Your task to perform on an android device: toggle improve location accuracy Image 0: 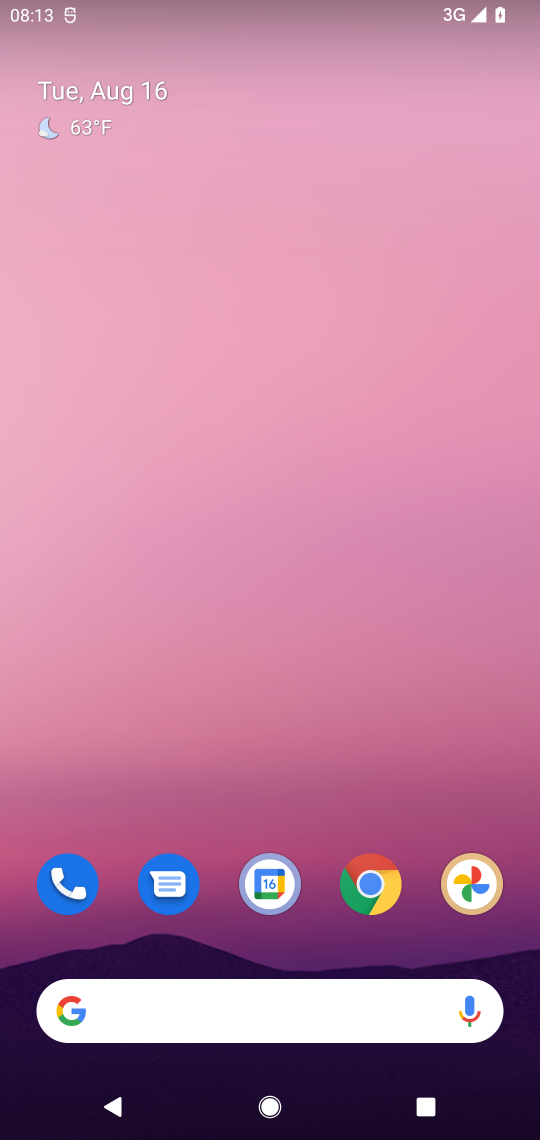
Step 0: press home button
Your task to perform on an android device: toggle improve location accuracy Image 1: 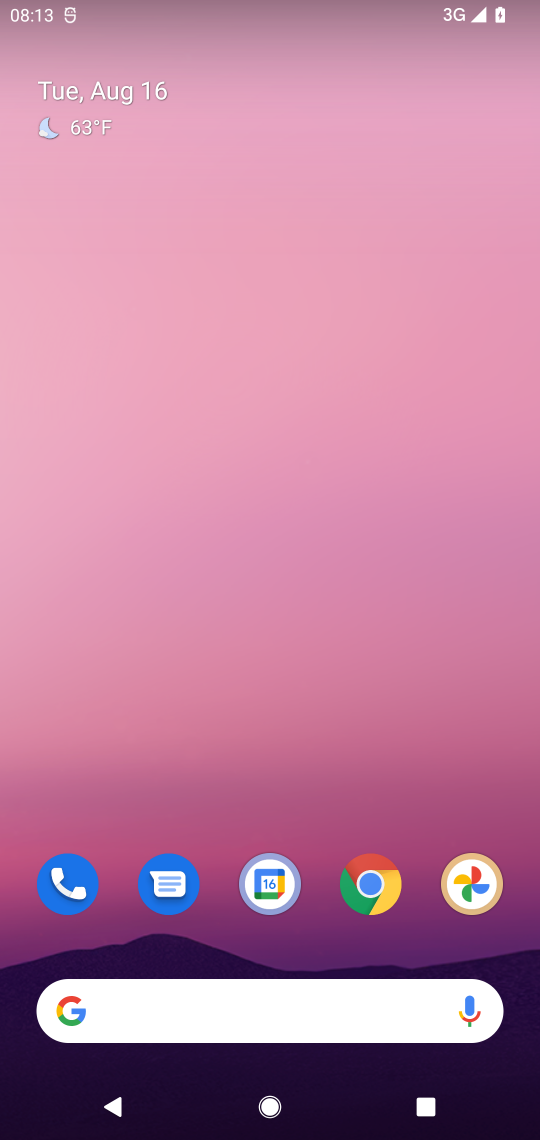
Step 1: drag from (308, 817) to (218, 129)
Your task to perform on an android device: toggle improve location accuracy Image 2: 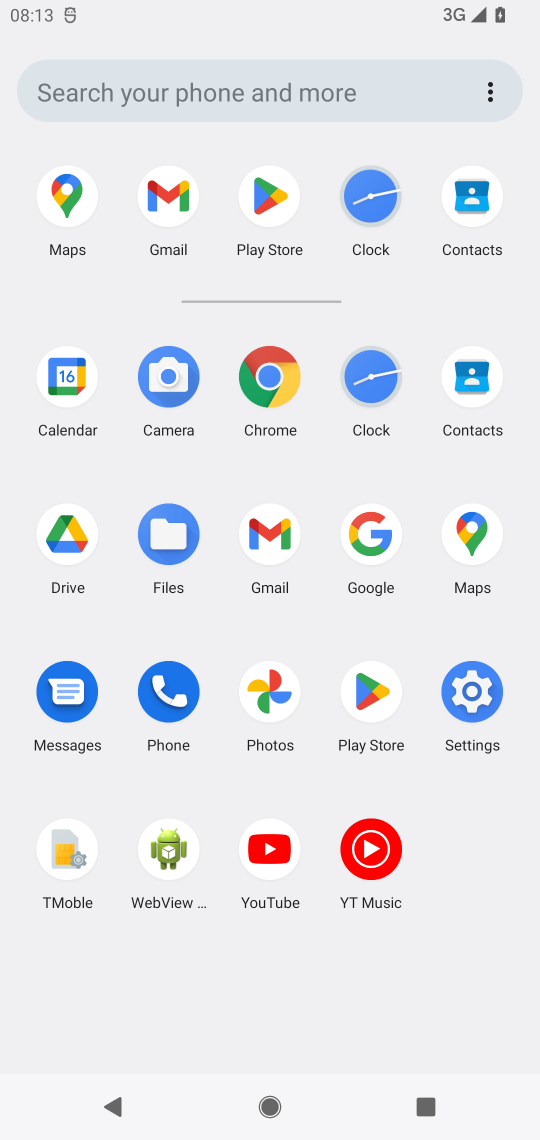
Step 2: click (466, 684)
Your task to perform on an android device: toggle improve location accuracy Image 3: 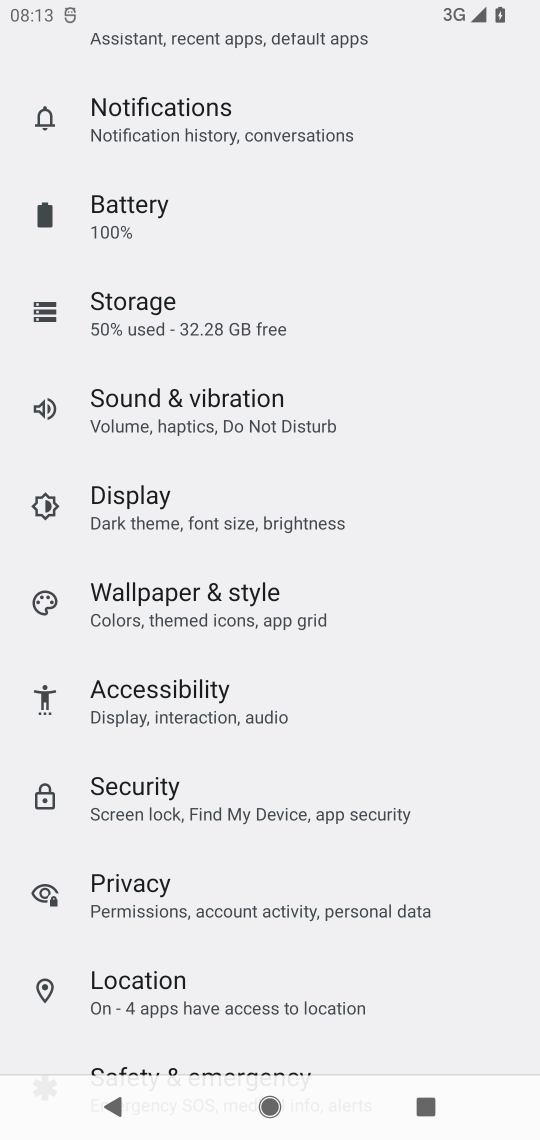
Step 3: drag from (244, 866) to (204, 54)
Your task to perform on an android device: toggle improve location accuracy Image 4: 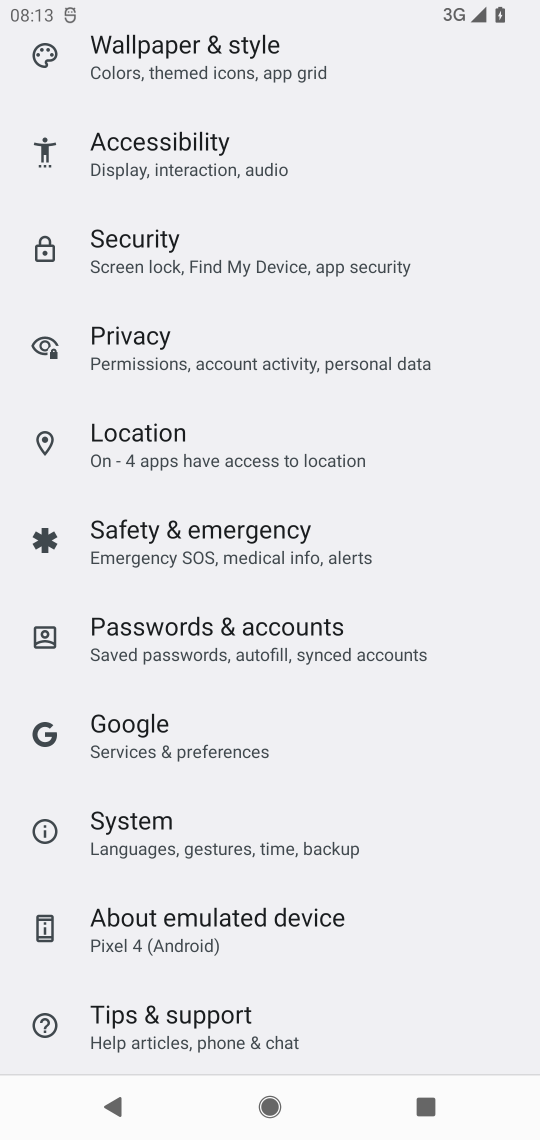
Step 4: click (169, 448)
Your task to perform on an android device: toggle improve location accuracy Image 5: 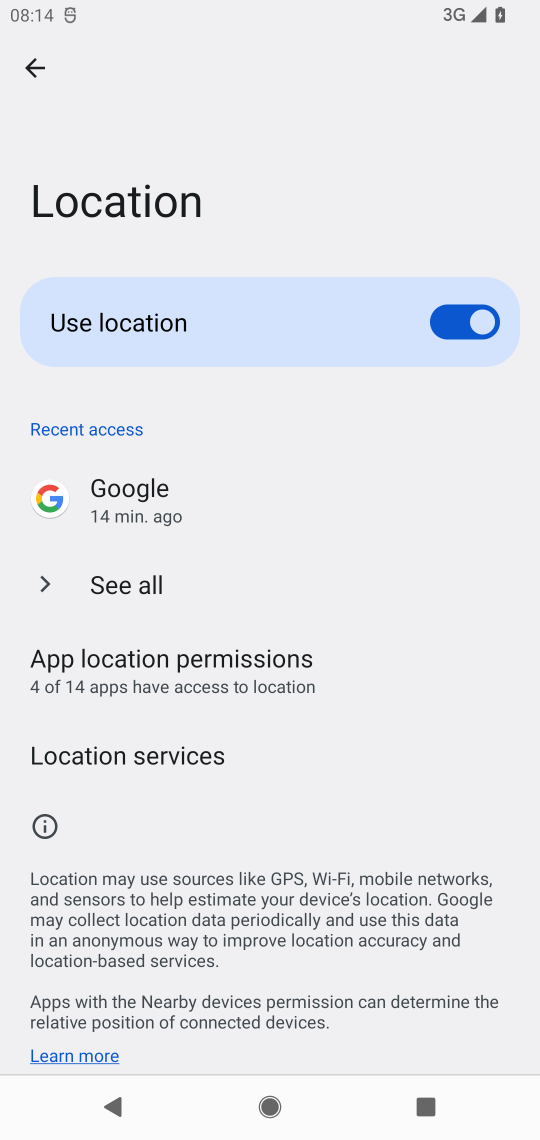
Step 5: click (94, 752)
Your task to perform on an android device: toggle improve location accuracy Image 6: 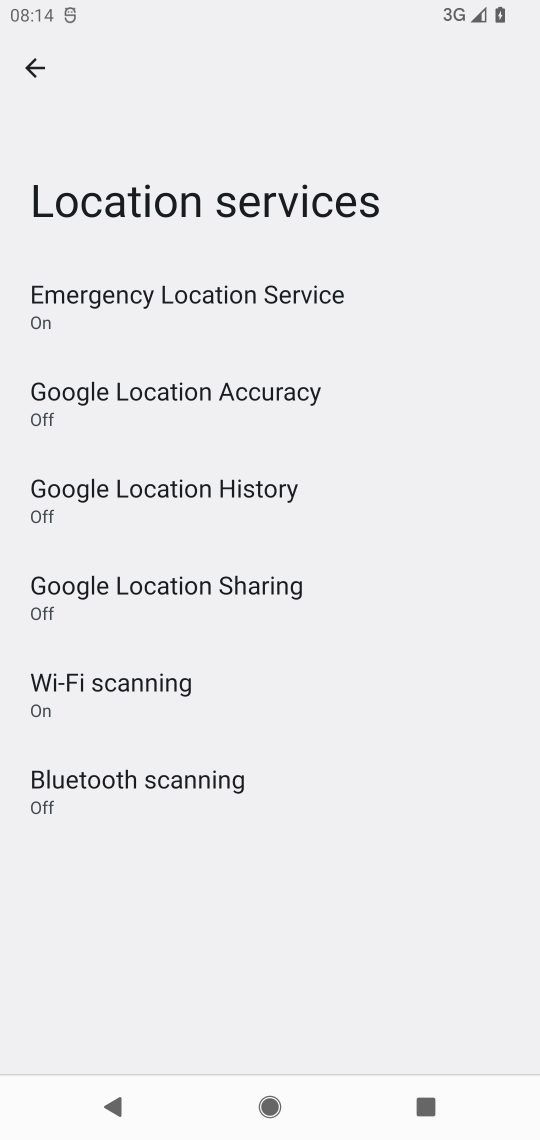
Step 6: click (179, 393)
Your task to perform on an android device: toggle improve location accuracy Image 7: 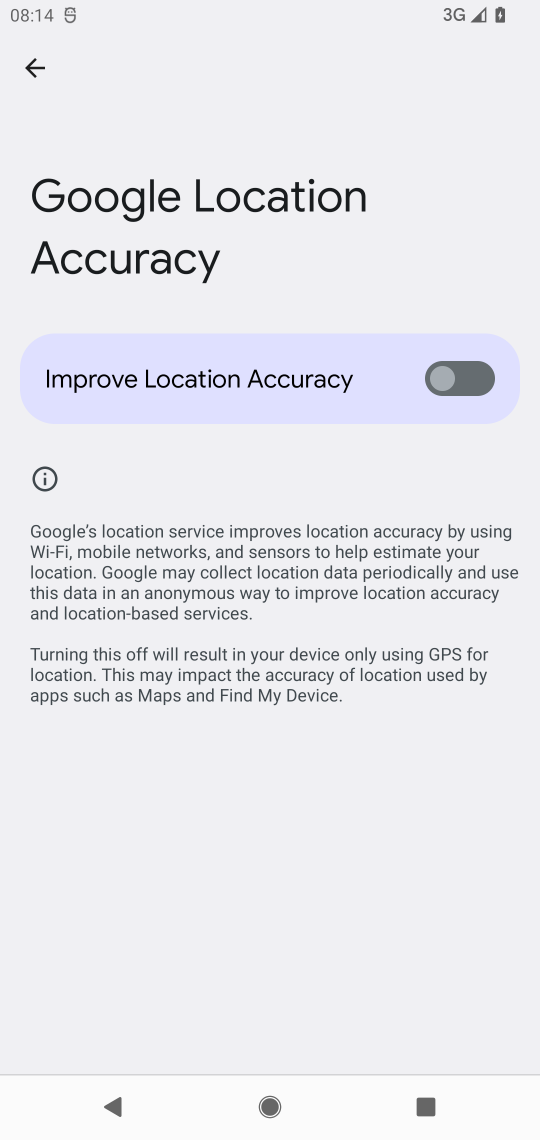
Step 7: click (456, 375)
Your task to perform on an android device: toggle improve location accuracy Image 8: 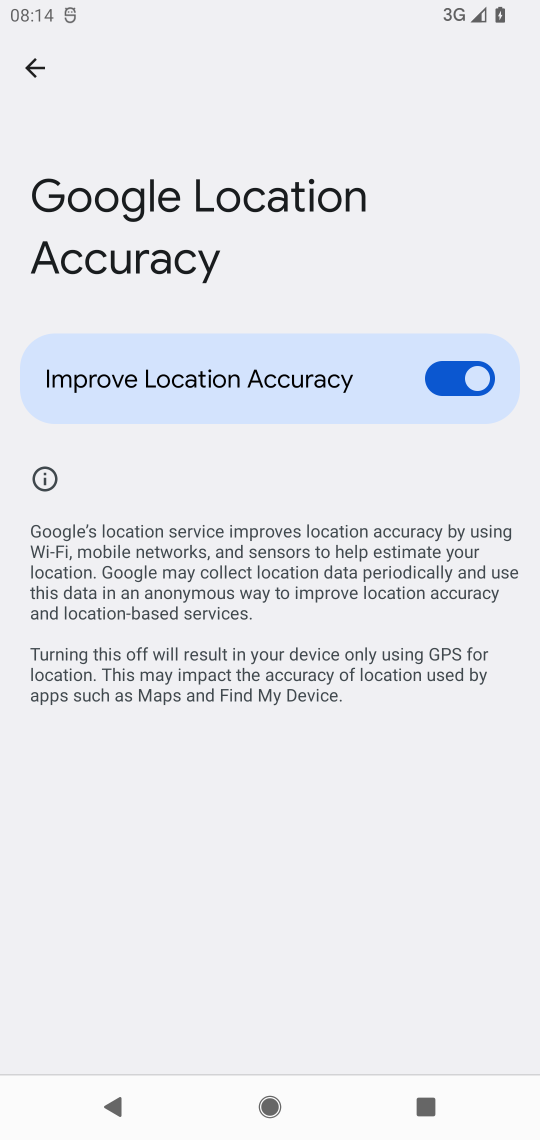
Step 8: task complete